Your task to perform on an android device: turn off javascript in the chrome app Image 0: 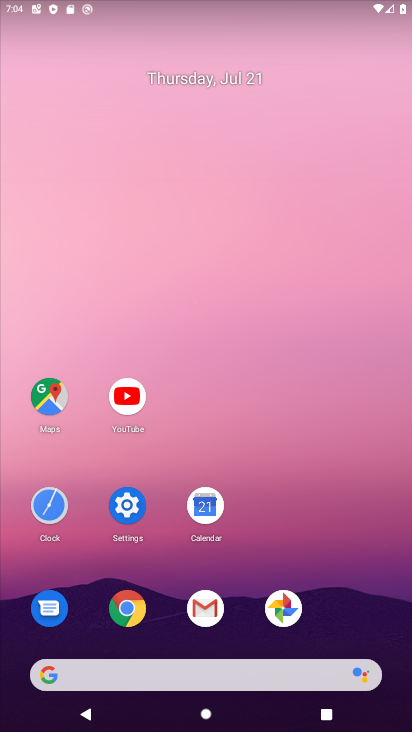
Step 0: click (129, 606)
Your task to perform on an android device: turn off javascript in the chrome app Image 1: 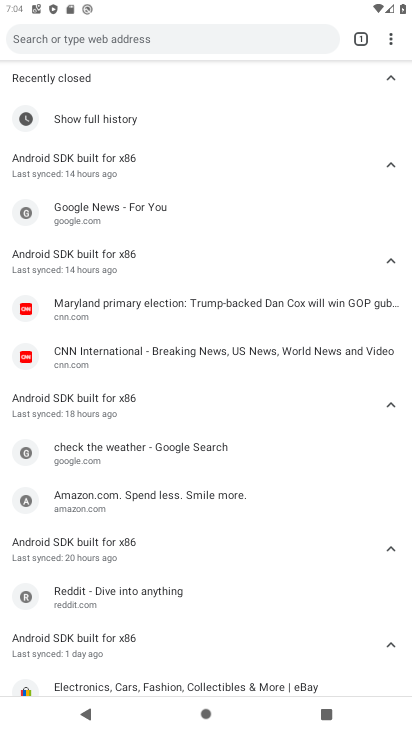
Step 1: click (393, 41)
Your task to perform on an android device: turn off javascript in the chrome app Image 2: 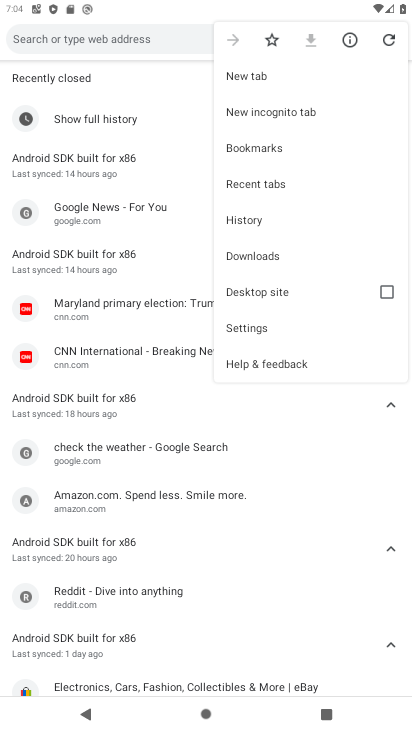
Step 2: click (258, 325)
Your task to perform on an android device: turn off javascript in the chrome app Image 3: 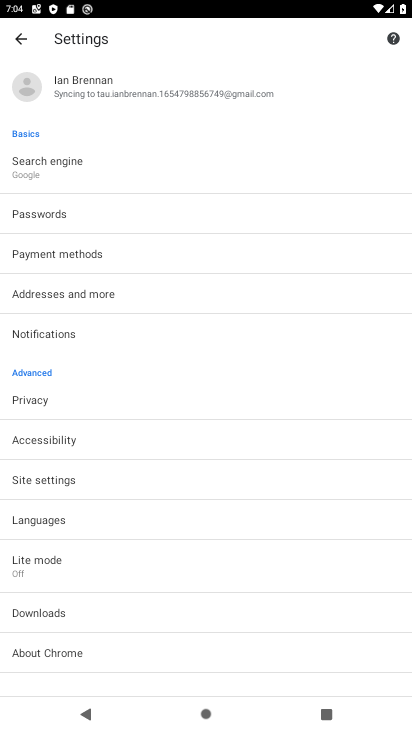
Step 3: click (45, 475)
Your task to perform on an android device: turn off javascript in the chrome app Image 4: 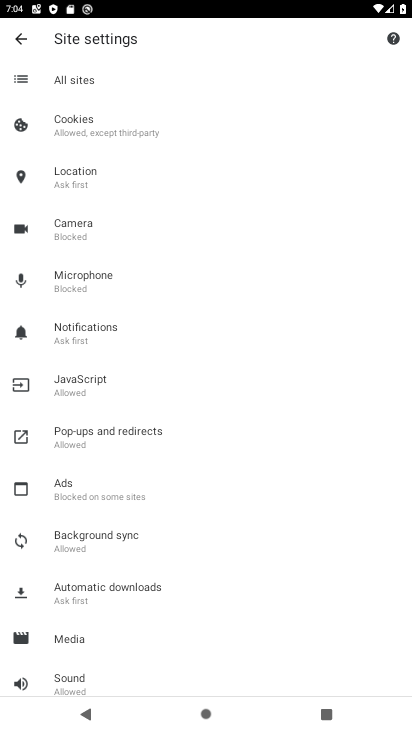
Step 4: click (87, 378)
Your task to perform on an android device: turn off javascript in the chrome app Image 5: 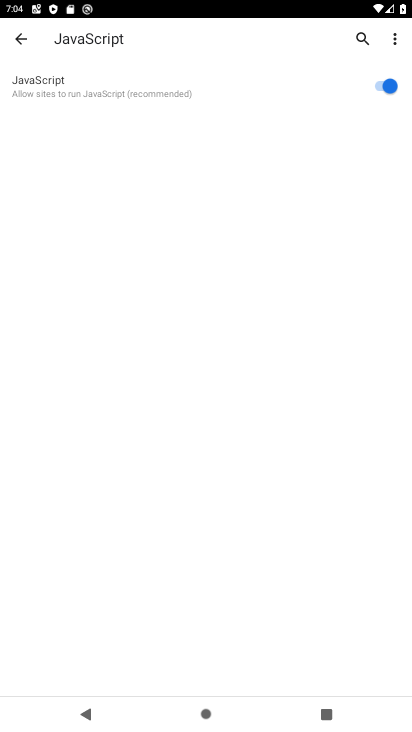
Step 5: click (386, 82)
Your task to perform on an android device: turn off javascript in the chrome app Image 6: 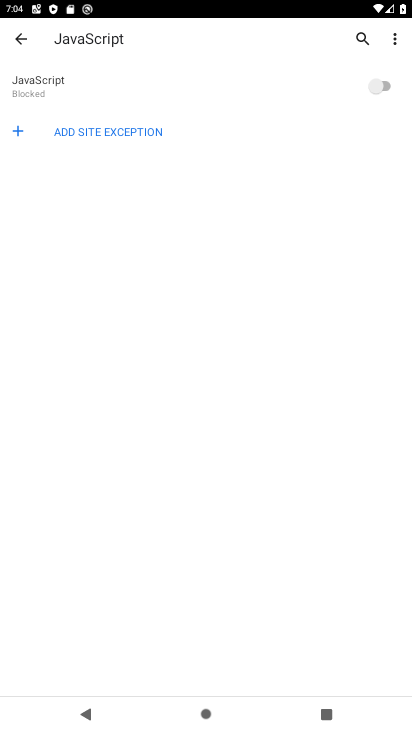
Step 6: task complete